Your task to perform on an android device: Add logitech g903 to the cart on amazon.com, then select checkout. Image 0: 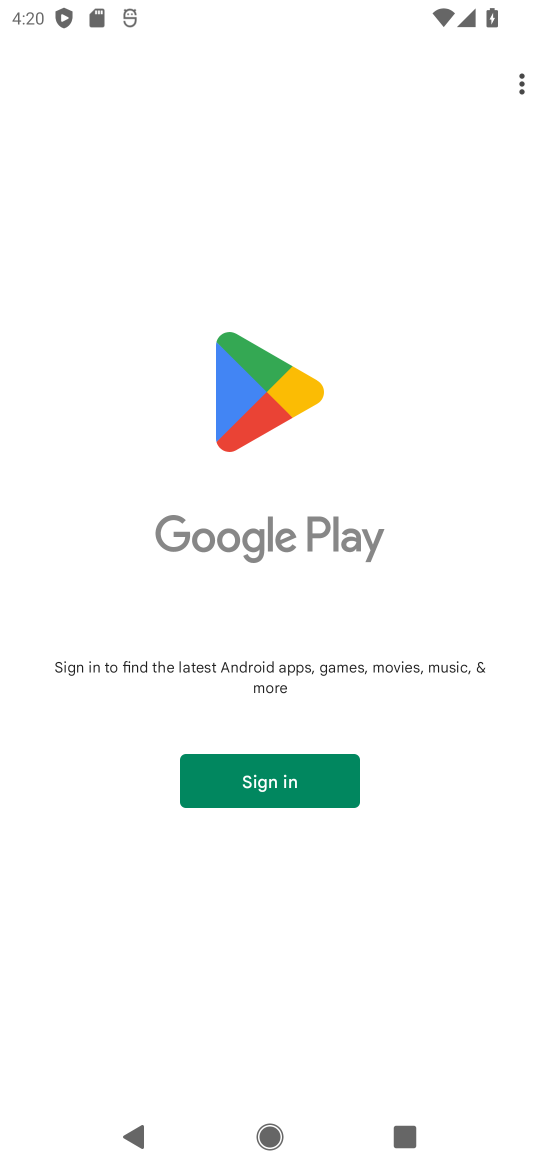
Step 0: press home button
Your task to perform on an android device: Add logitech g903 to the cart on amazon.com, then select checkout. Image 1: 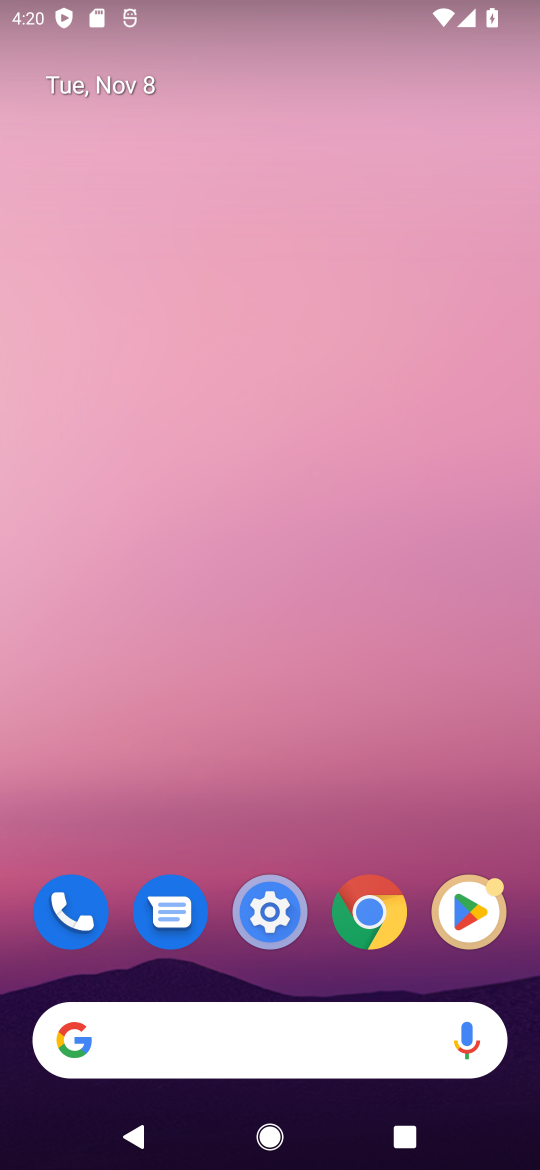
Step 1: click (376, 915)
Your task to perform on an android device: Add logitech g903 to the cart on amazon.com, then select checkout. Image 2: 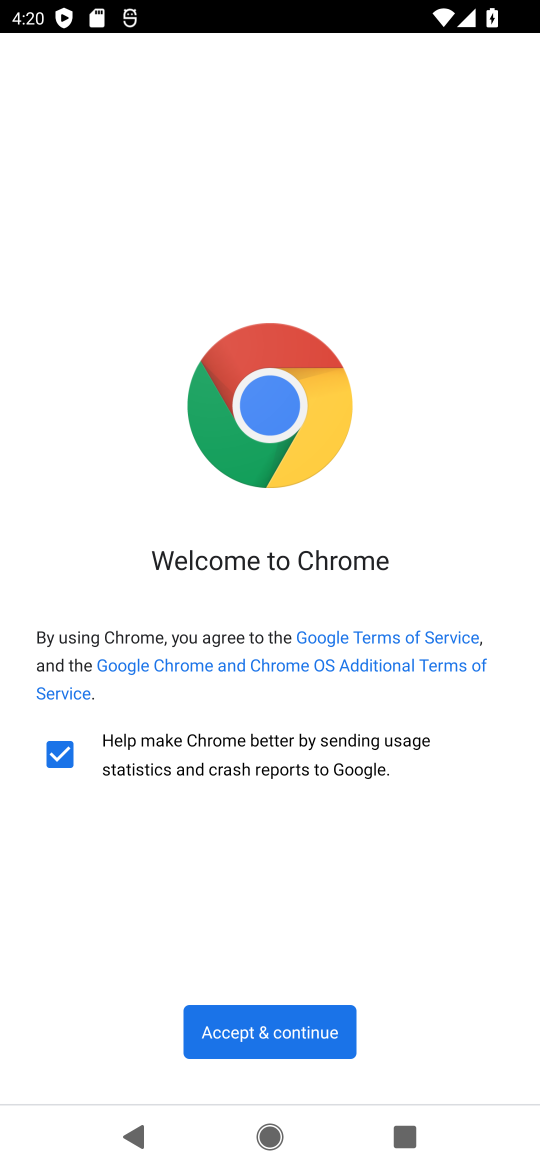
Step 2: click (274, 1031)
Your task to perform on an android device: Add logitech g903 to the cart on amazon.com, then select checkout. Image 3: 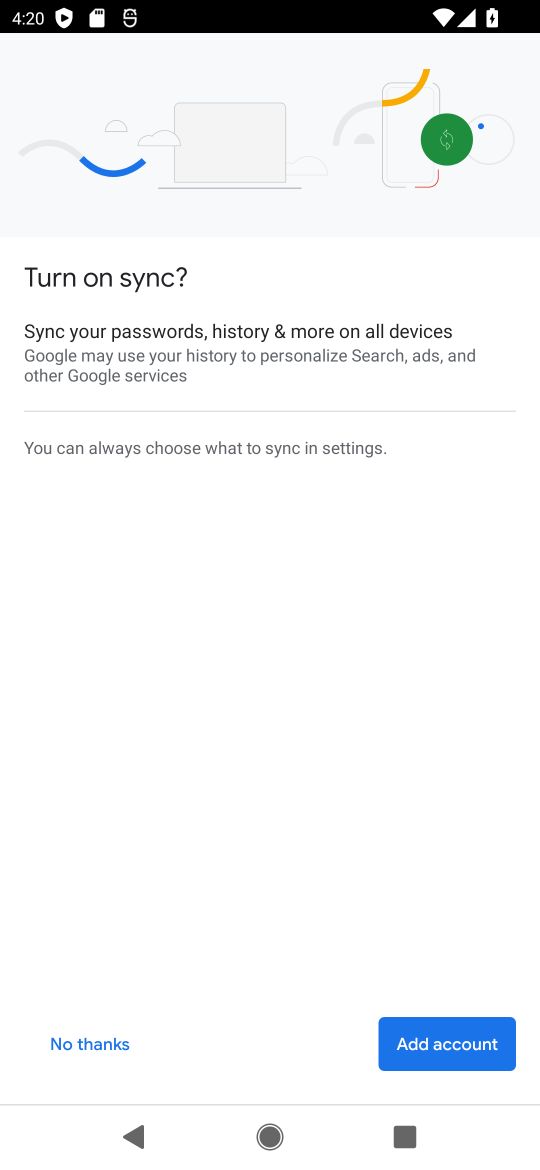
Step 3: click (101, 1042)
Your task to perform on an android device: Add logitech g903 to the cart on amazon.com, then select checkout. Image 4: 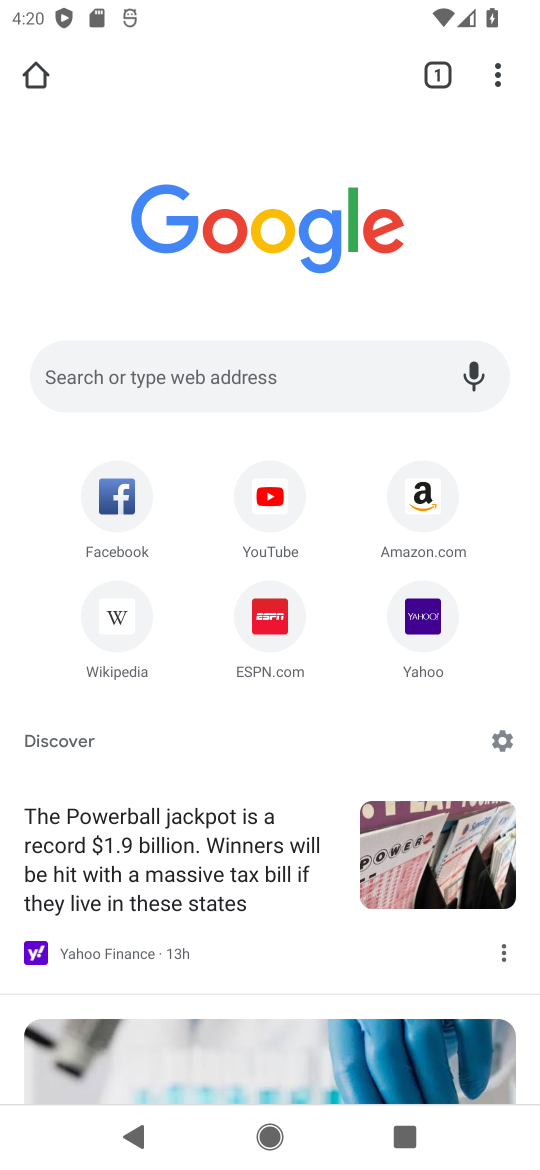
Step 4: click (249, 364)
Your task to perform on an android device: Add logitech g903 to the cart on amazon.com, then select checkout. Image 5: 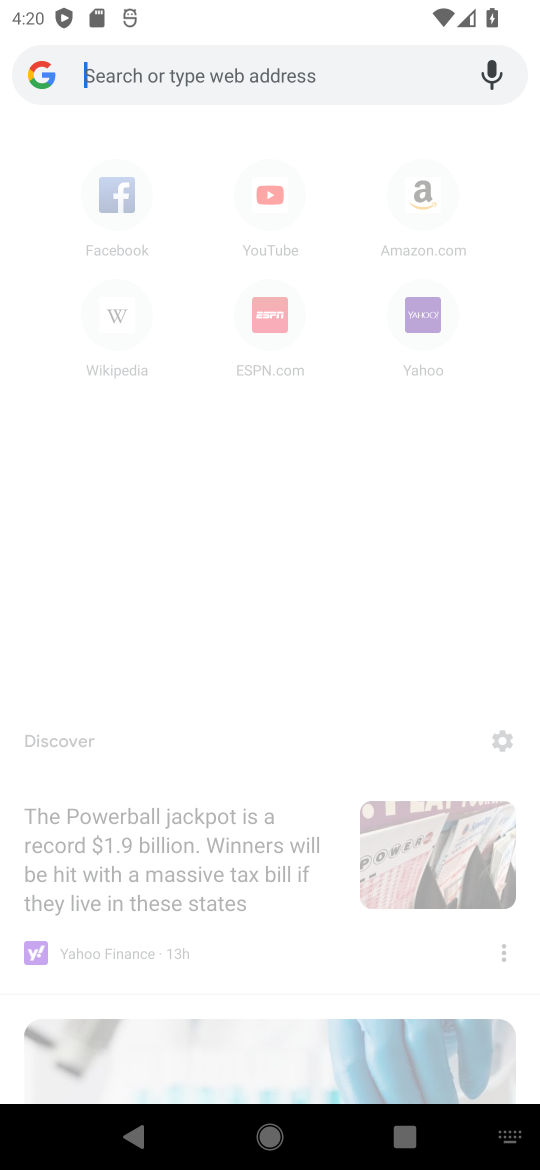
Step 5: type "amazon"
Your task to perform on an android device: Add logitech g903 to the cart on amazon.com, then select checkout. Image 6: 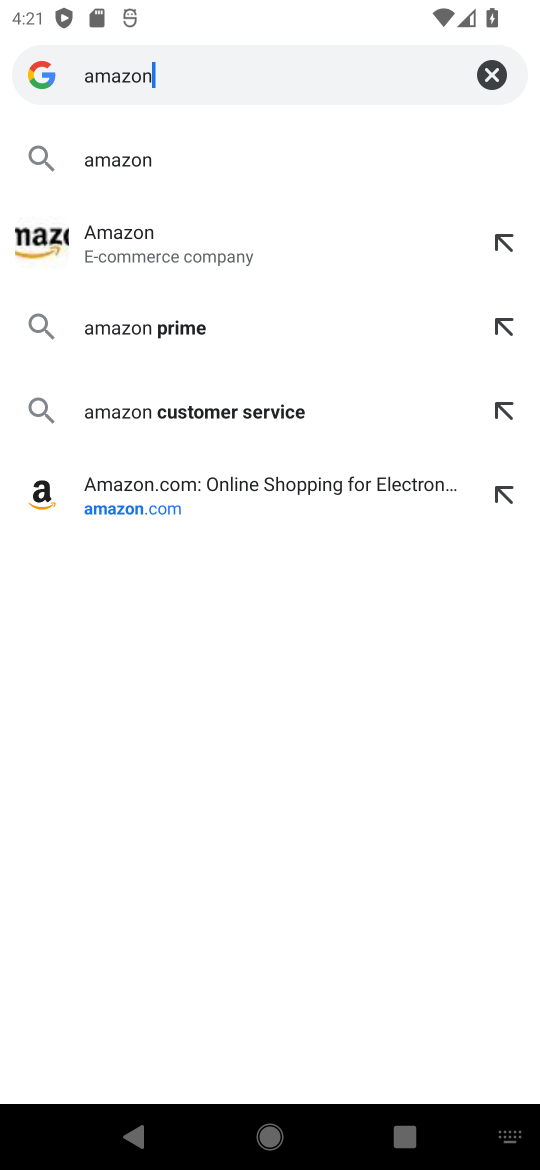
Step 6: click (104, 232)
Your task to perform on an android device: Add logitech g903 to the cart on amazon.com, then select checkout. Image 7: 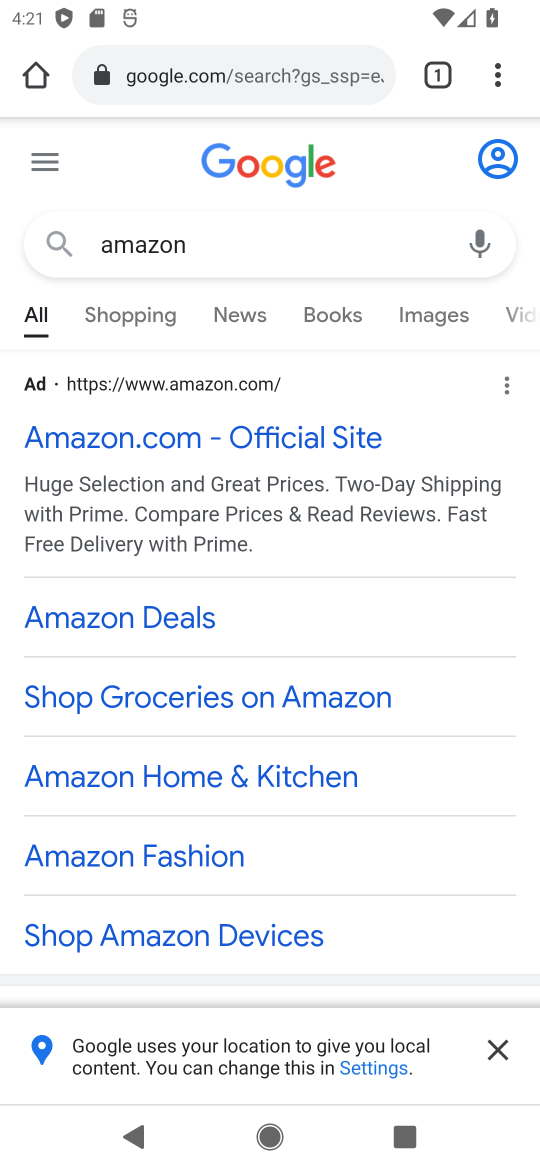
Step 7: drag from (211, 947) to (331, 210)
Your task to perform on an android device: Add logitech g903 to the cart on amazon.com, then select checkout. Image 8: 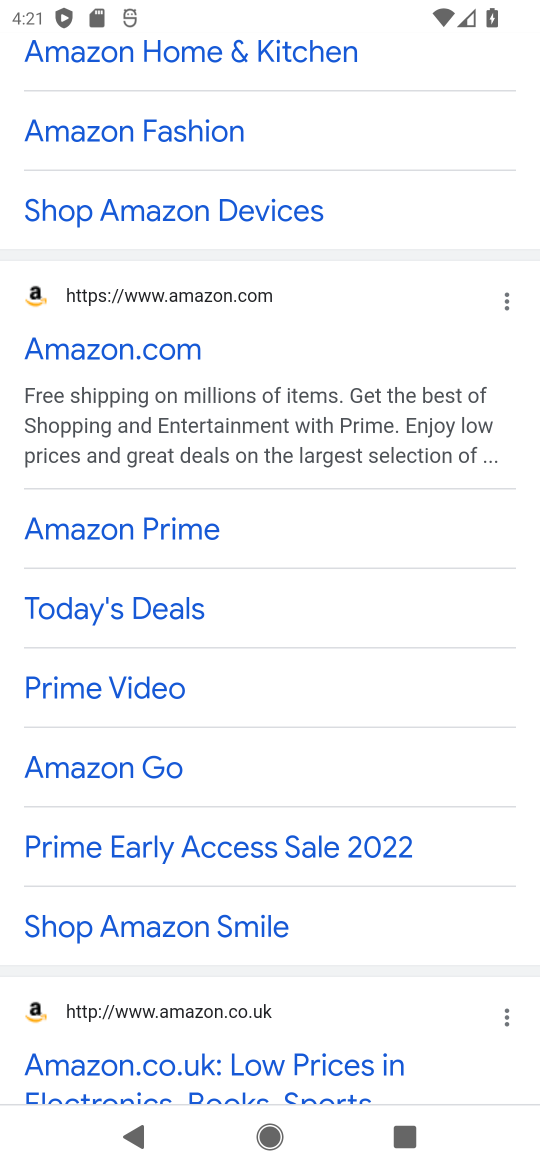
Step 8: click (132, 349)
Your task to perform on an android device: Add logitech g903 to the cart on amazon.com, then select checkout. Image 9: 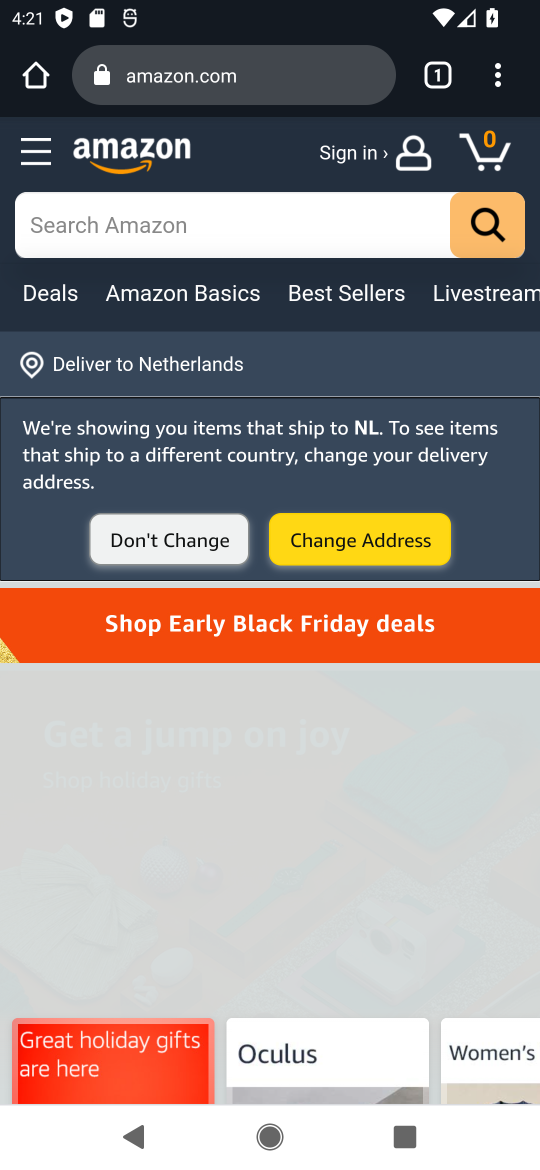
Step 9: click (140, 223)
Your task to perform on an android device: Add logitech g903 to the cart on amazon.com, then select checkout. Image 10: 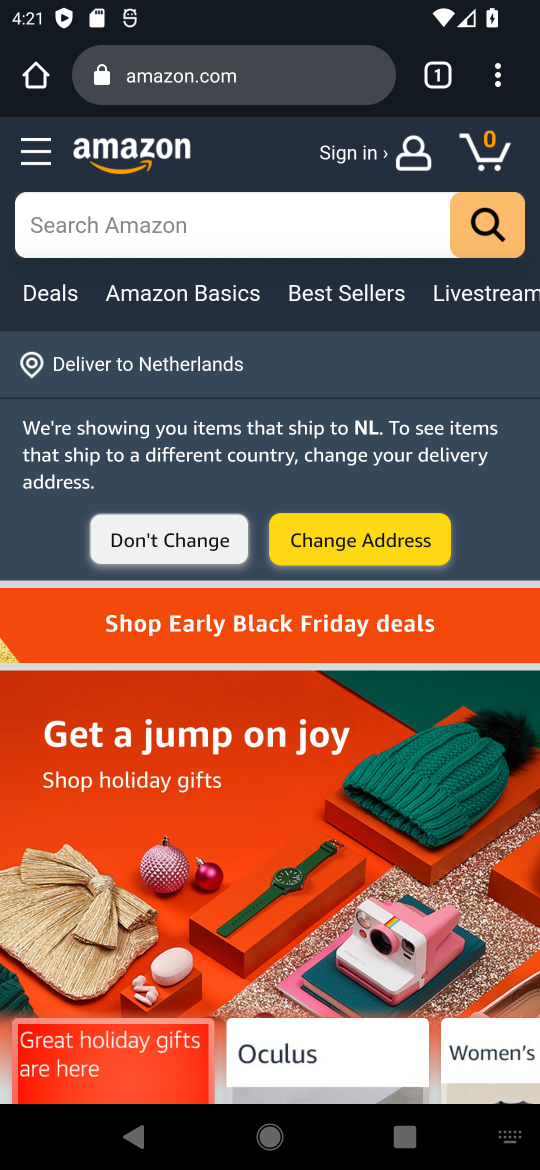
Step 10: type "logitech g903"
Your task to perform on an android device: Add logitech g903 to the cart on amazon.com, then select checkout. Image 11: 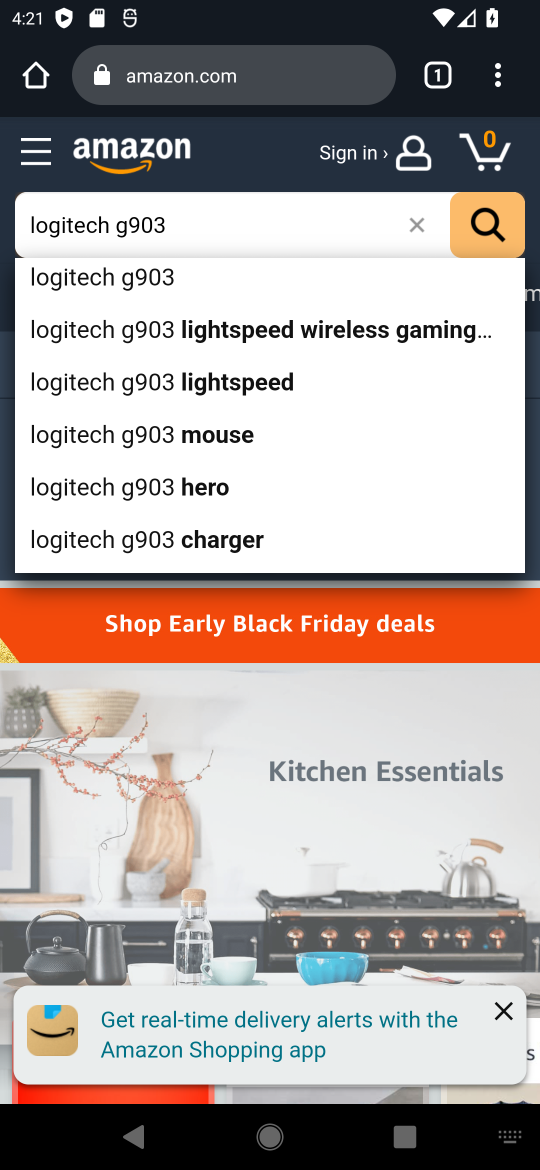
Step 11: click (138, 277)
Your task to perform on an android device: Add logitech g903 to the cart on amazon.com, then select checkout. Image 12: 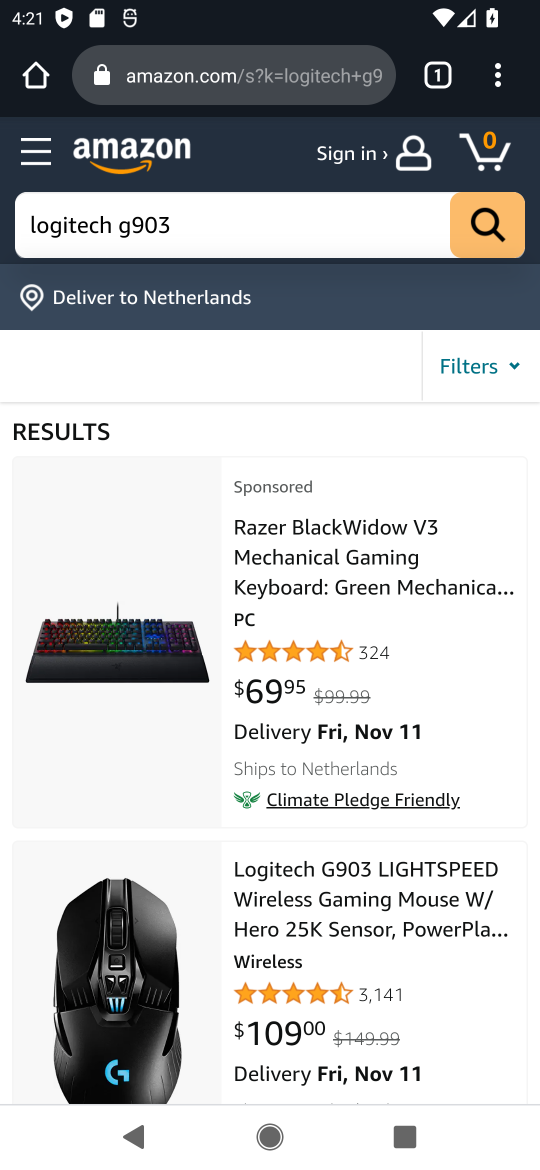
Step 12: click (365, 913)
Your task to perform on an android device: Add logitech g903 to the cart on amazon.com, then select checkout. Image 13: 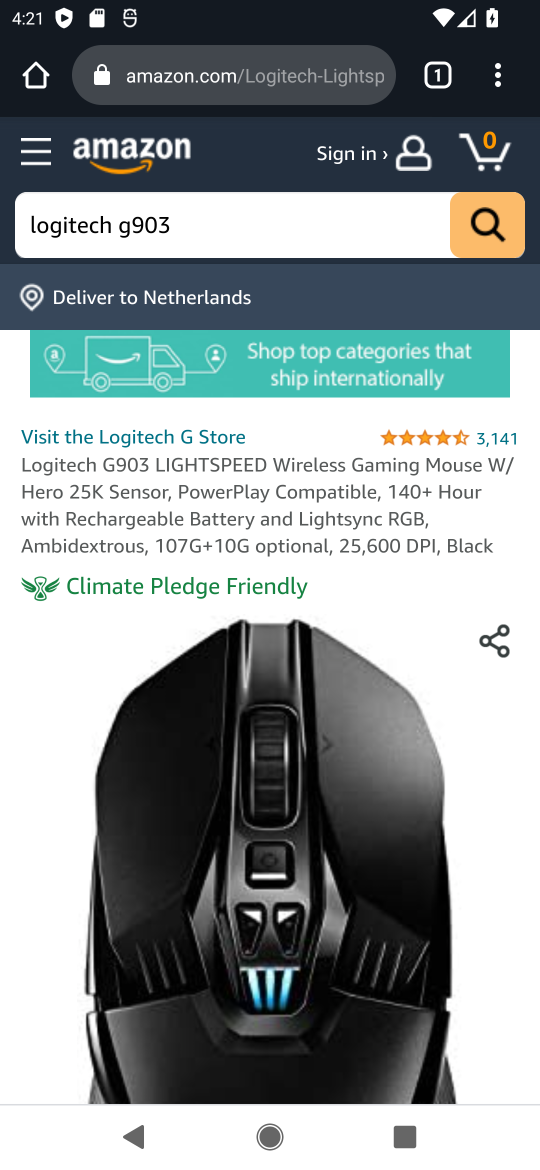
Step 13: drag from (344, 986) to (434, 162)
Your task to perform on an android device: Add logitech g903 to the cart on amazon.com, then select checkout. Image 14: 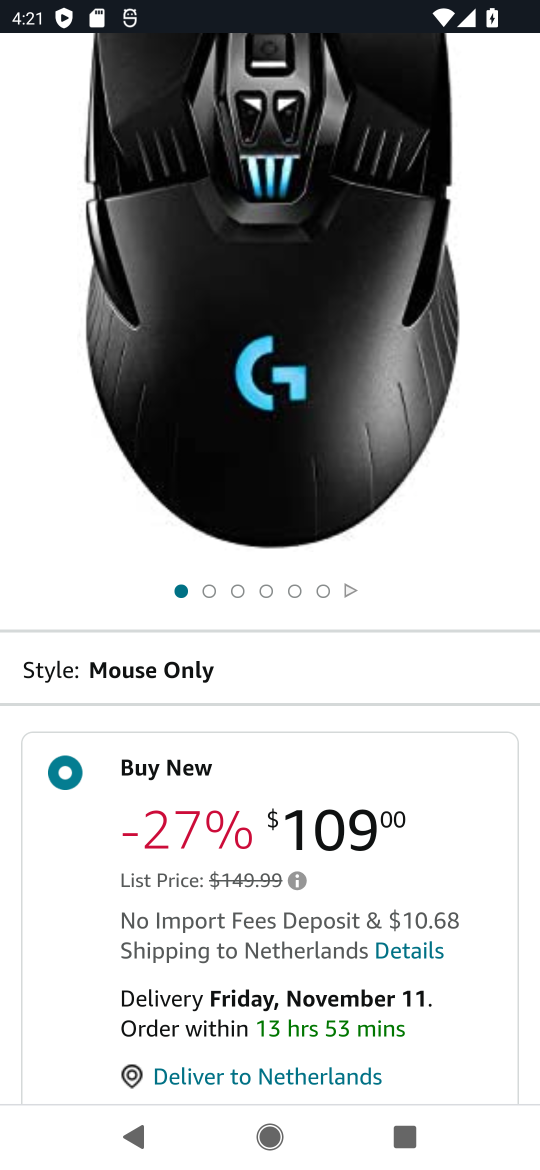
Step 14: drag from (335, 956) to (503, 310)
Your task to perform on an android device: Add logitech g903 to the cart on amazon.com, then select checkout. Image 15: 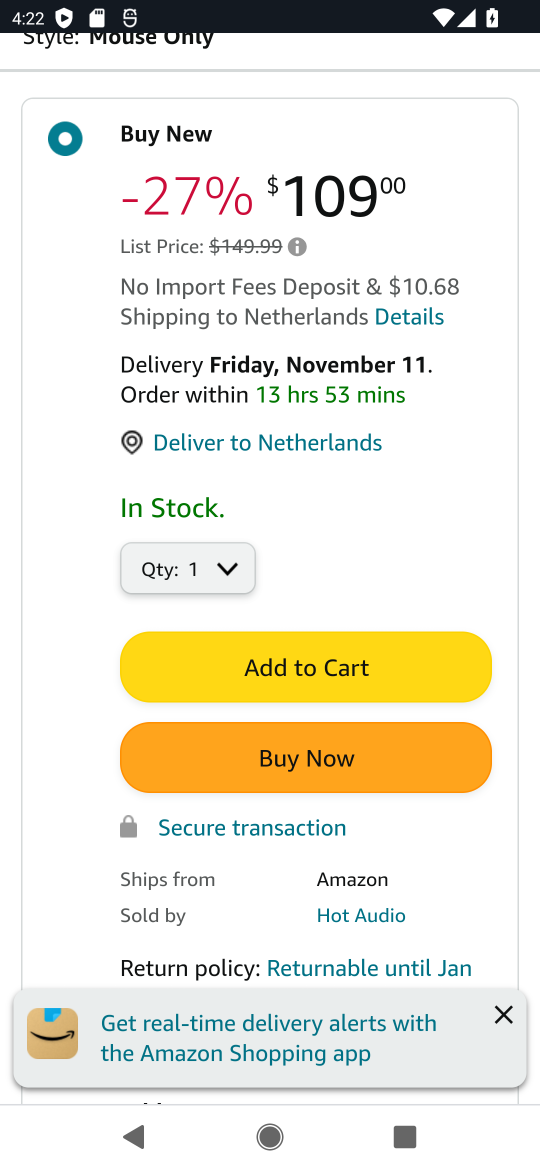
Step 15: click (290, 676)
Your task to perform on an android device: Add logitech g903 to the cart on amazon.com, then select checkout. Image 16: 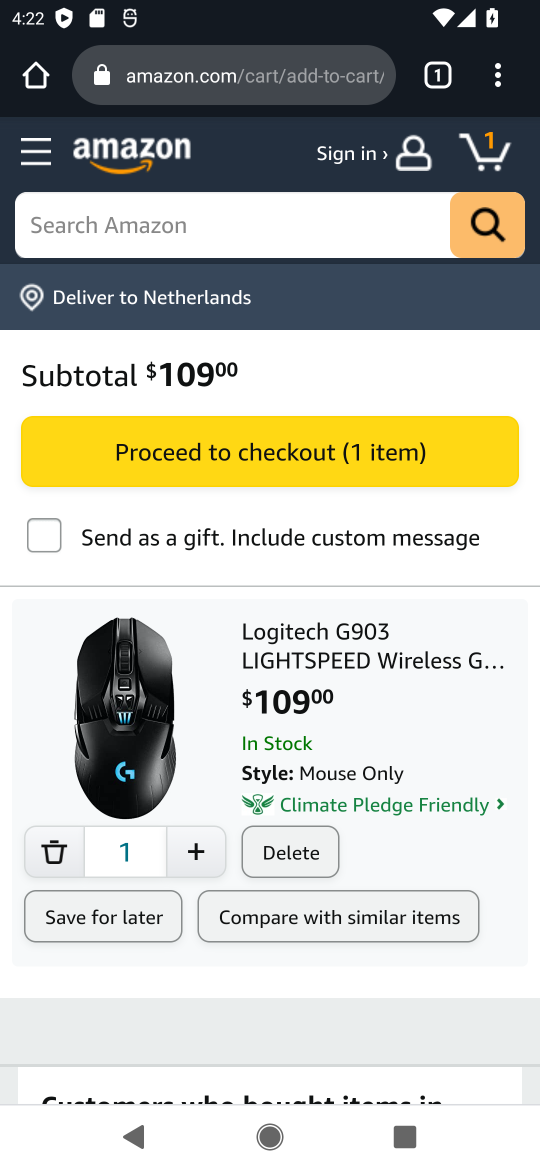
Step 16: click (351, 464)
Your task to perform on an android device: Add logitech g903 to the cart on amazon.com, then select checkout. Image 17: 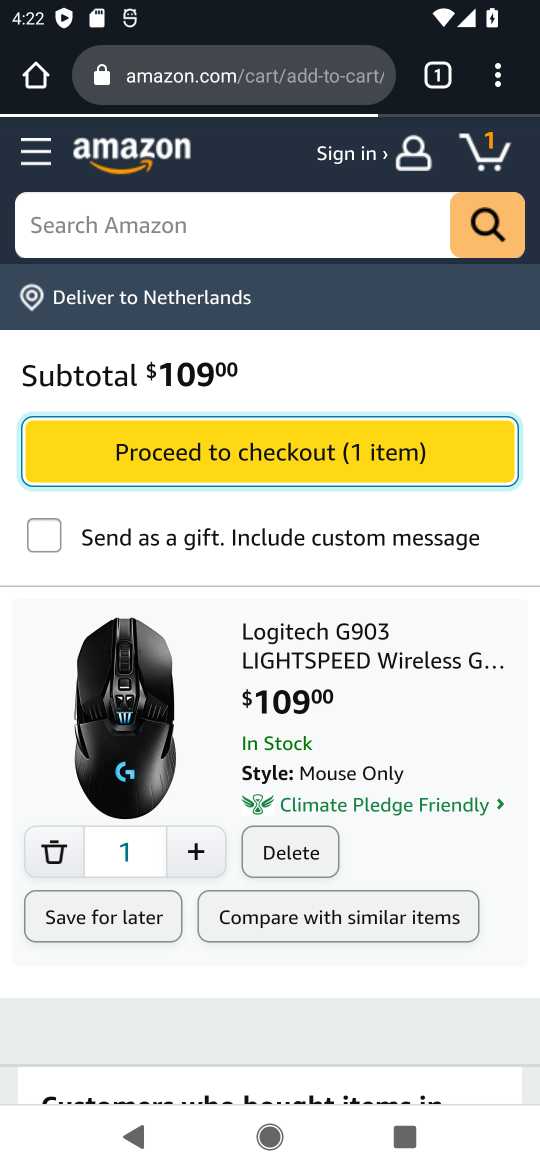
Step 17: click (375, 455)
Your task to perform on an android device: Add logitech g903 to the cart on amazon.com, then select checkout. Image 18: 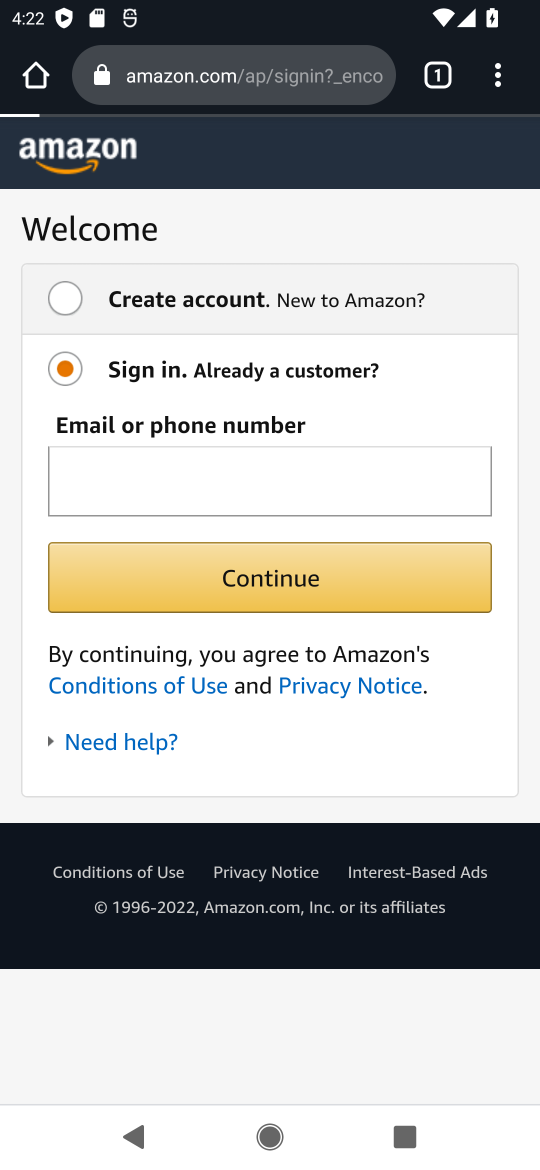
Step 18: task complete